Your task to perform on an android device: Open maps Image 0: 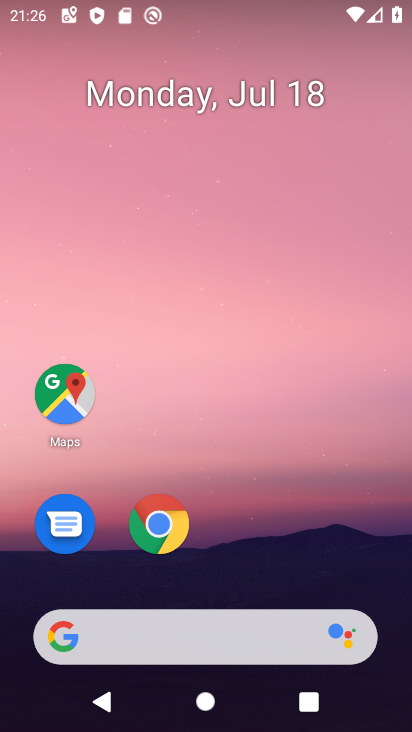
Step 0: click (65, 391)
Your task to perform on an android device: Open maps Image 1: 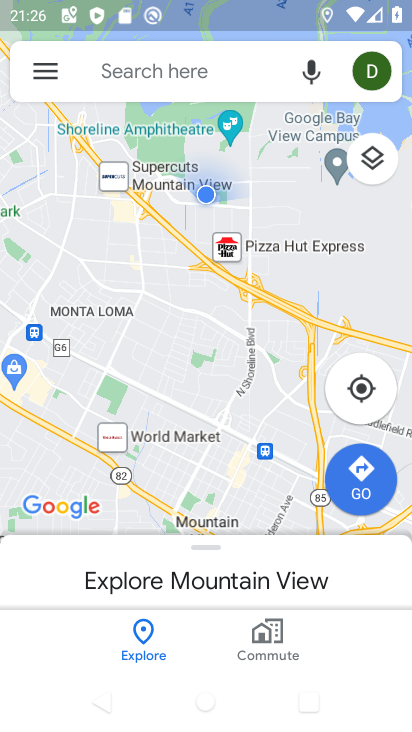
Step 1: task complete